Your task to perform on an android device: Open privacy settings Image 0: 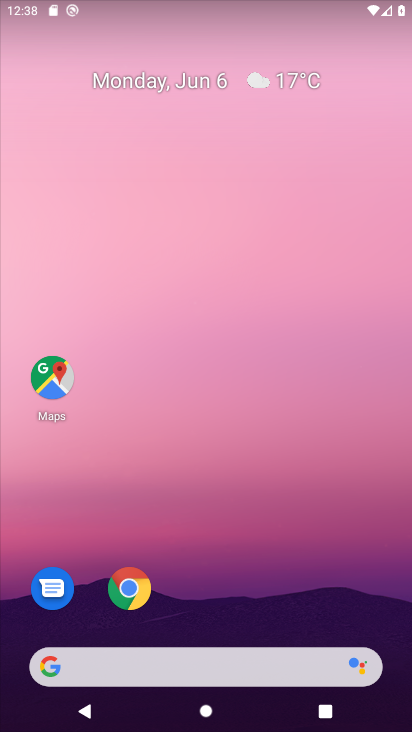
Step 0: drag from (144, 723) to (153, 162)
Your task to perform on an android device: Open privacy settings Image 1: 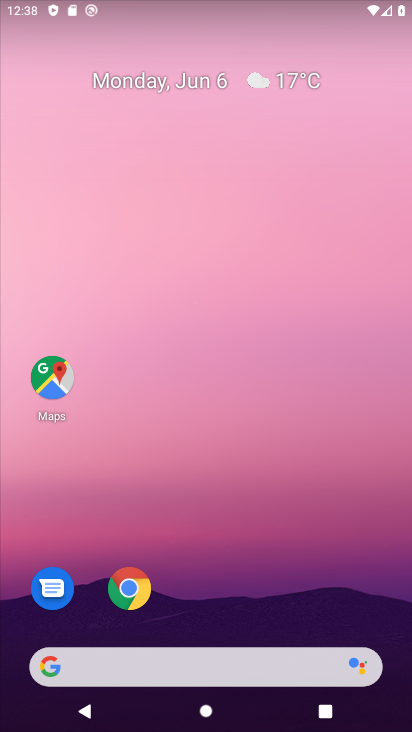
Step 1: drag from (166, 675) to (126, 37)
Your task to perform on an android device: Open privacy settings Image 2: 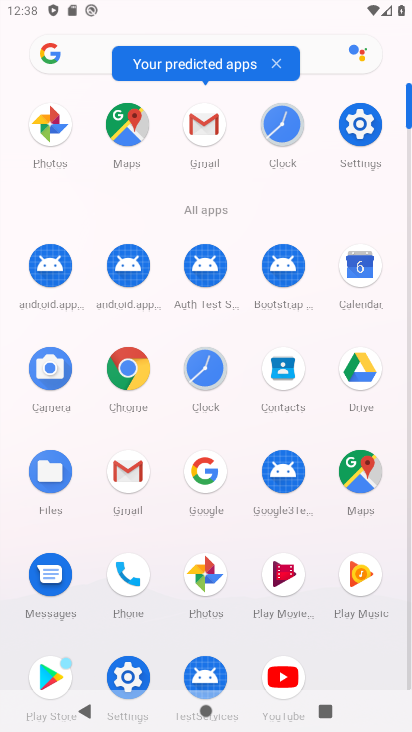
Step 2: click (364, 136)
Your task to perform on an android device: Open privacy settings Image 3: 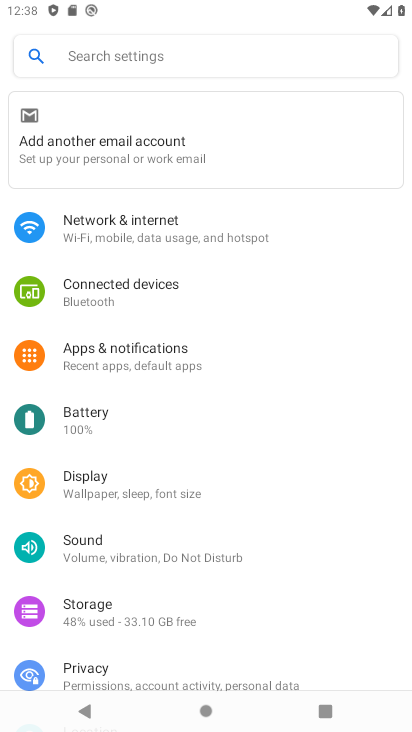
Step 3: click (156, 678)
Your task to perform on an android device: Open privacy settings Image 4: 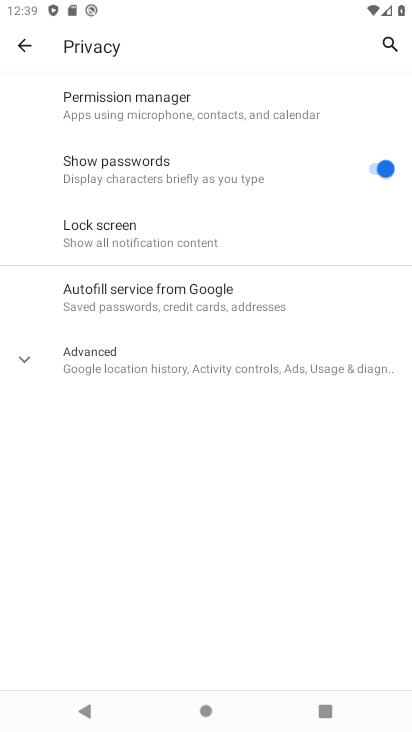
Step 4: task complete